Your task to perform on an android device: Open Maps and search for coffee Image 0: 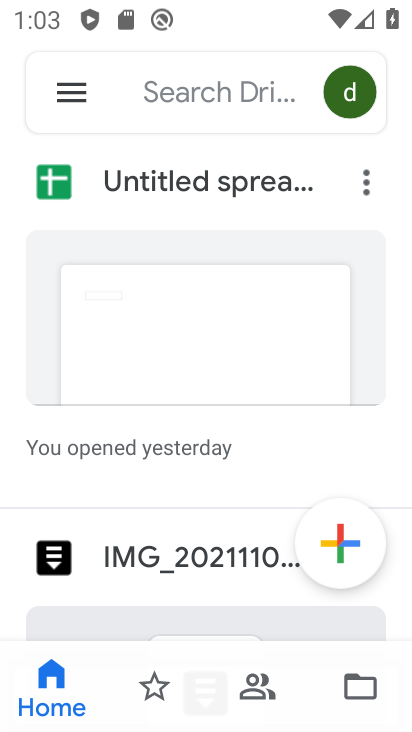
Step 0: press home button
Your task to perform on an android device: Open Maps and search for coffee Image 1: 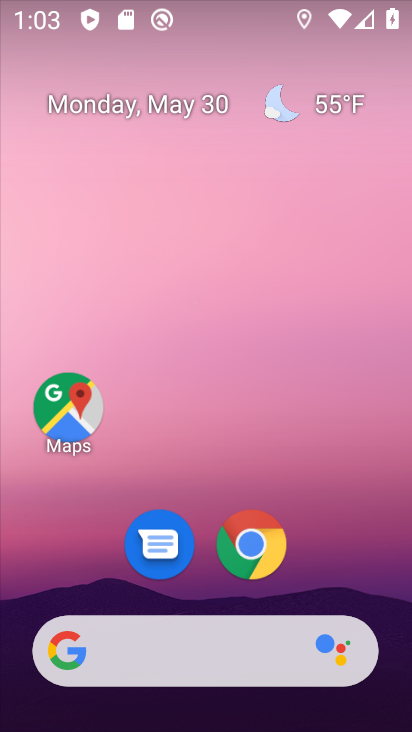
Step 1: click (80, 406)
Your task to perform on an android device: Open Maps and search for coffee Image 2: 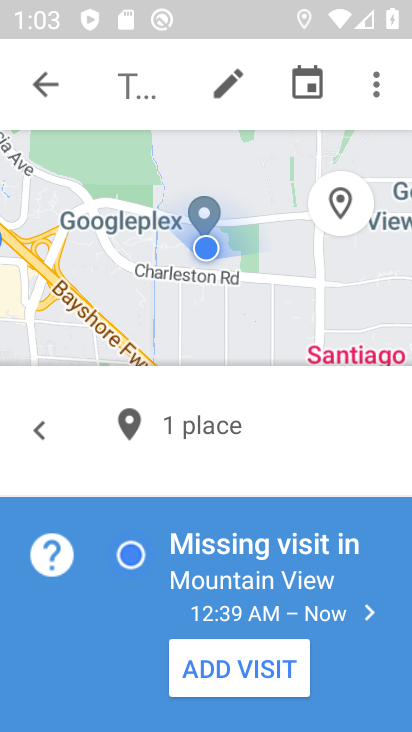
Step 2: click (50, 68)
Your task to perform on an android device: Open Maps and search for coffee Image 3: 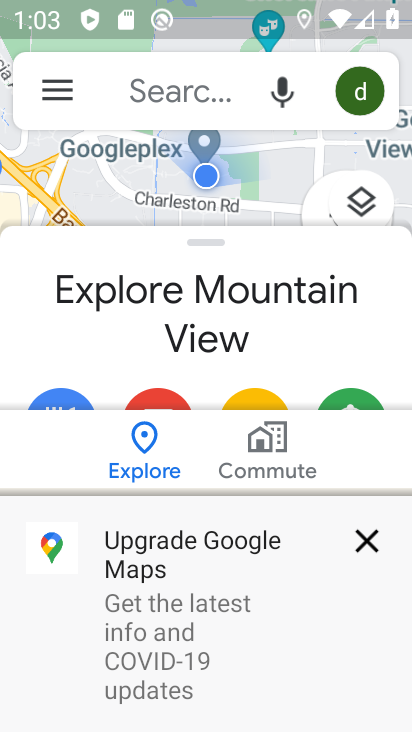
Step 3: click (162, 85)
Your task to perform on an android device: Open Maps and search for coffee Image 4: 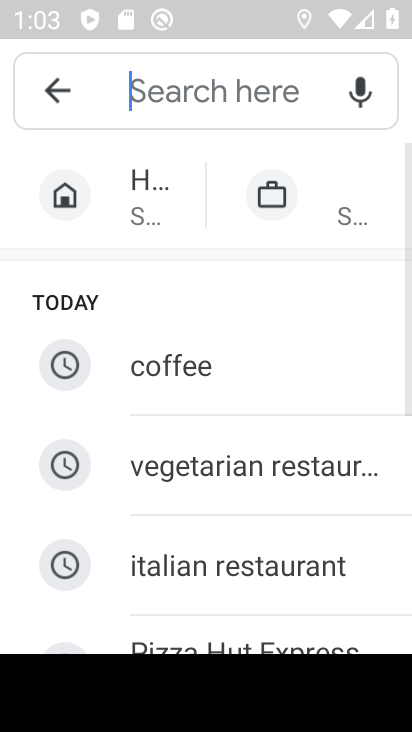
Step 4: click (225, 369)
Your task to perform on an android device: Open Maps and search for coffee Image 5: 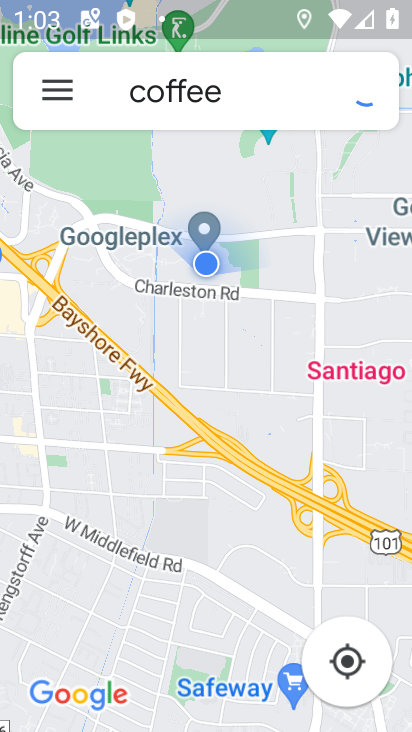
Step 5: task complete